Your task to perform on an android device: Open maps Image 0: 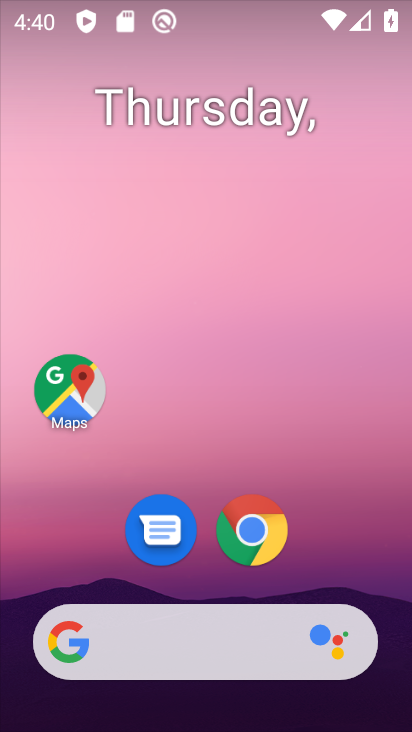
Step 0: drag from (318, 609) to (326, 17)
Your task to perform on an android device: Open maps Image 1: 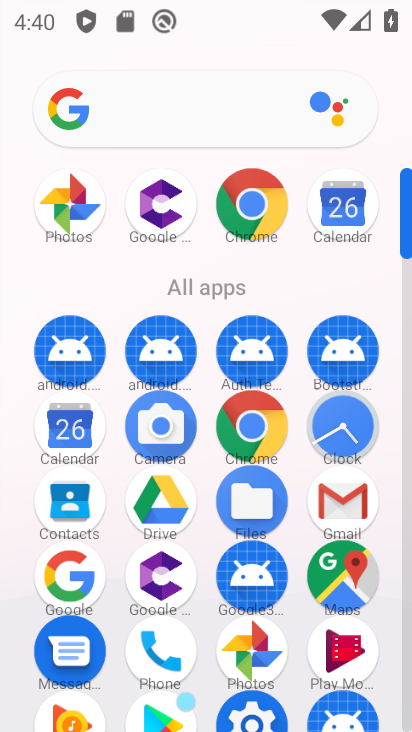
Step 1: click (357, 570)
Your task to perform on an android device: Open maps Image 2: 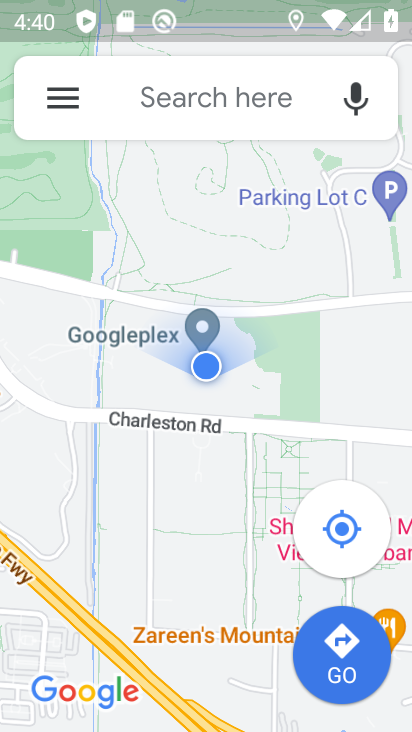
Step 2: task complete